Your task to perform on an android device: set an alarm Image 0: 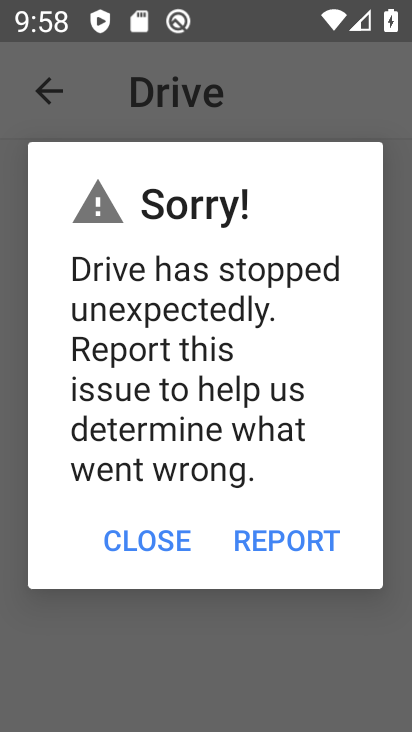
Step 0: press home button
Your task to perform on an android device: set an alarm Image 1: 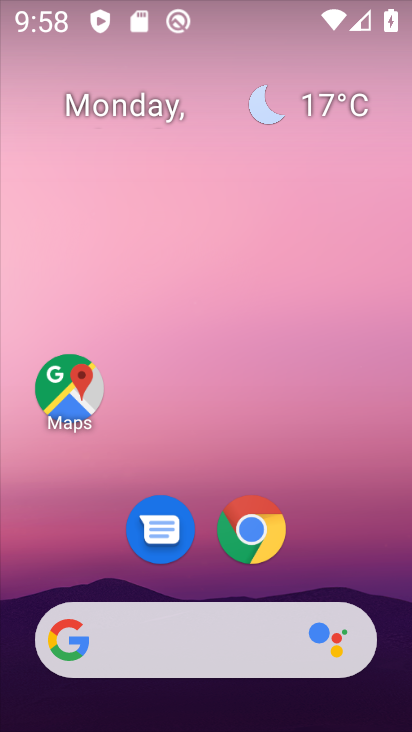
Step 1: drag from (352, 543) to (343, 0)
Your task to perform on an android device: set an alarm Image 2: 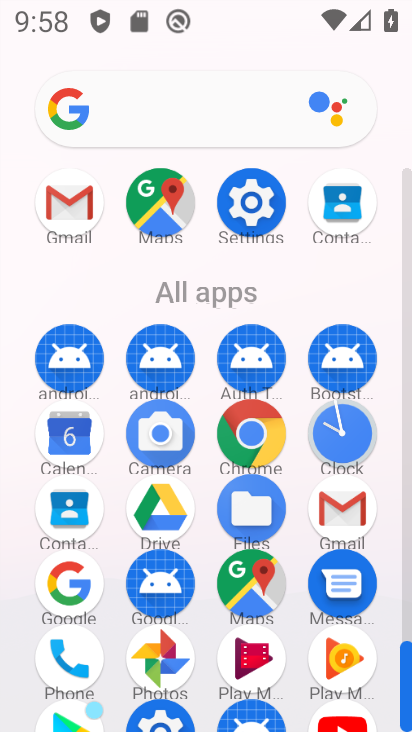
Step 2: click (328, 435)
Your task to perform on an android device: set an alarm Image 3: 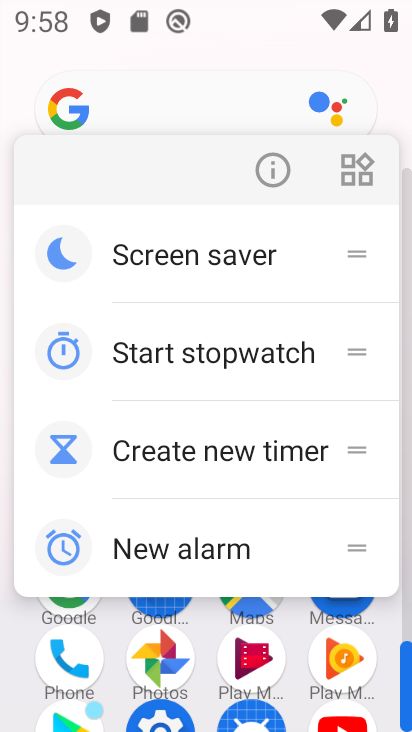
Step 3: click (394, 614)
Your task to perform on an android device: set an alarm Image 4: 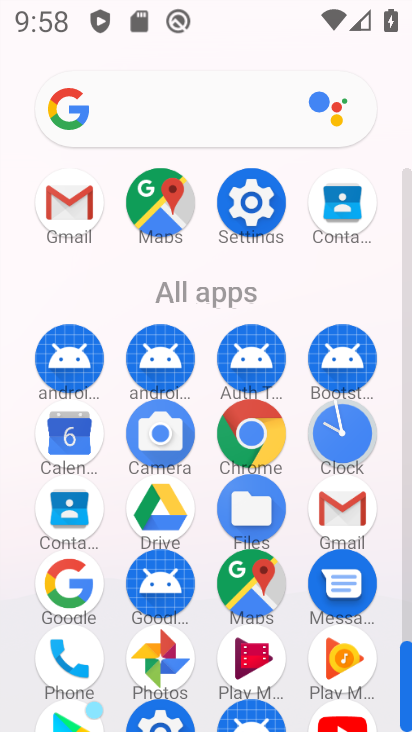
Step 4: click (365, 443)
Your task to perform on an android device: set an alarm Image 5: 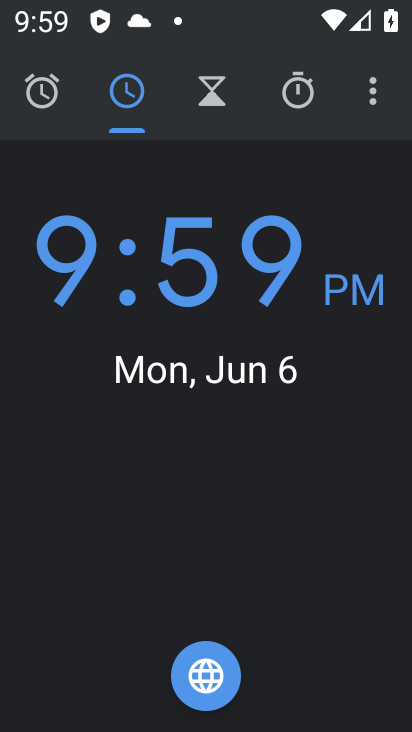
Step 5: click (19, 101)
Your task to perform on an android device: set an alarm Image 6: 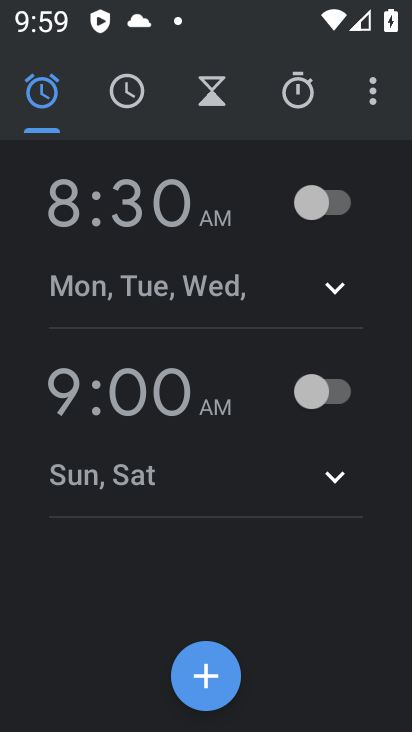
Step 6: click (209, 694)
Your task to perform on an android device: set an alarm Image 7: 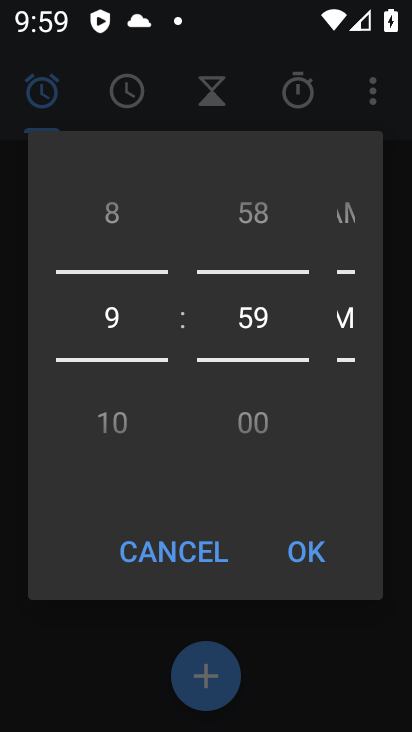
Step 7: click (286, 566)
Your task to perform on an android device: set an alarm Image 8: 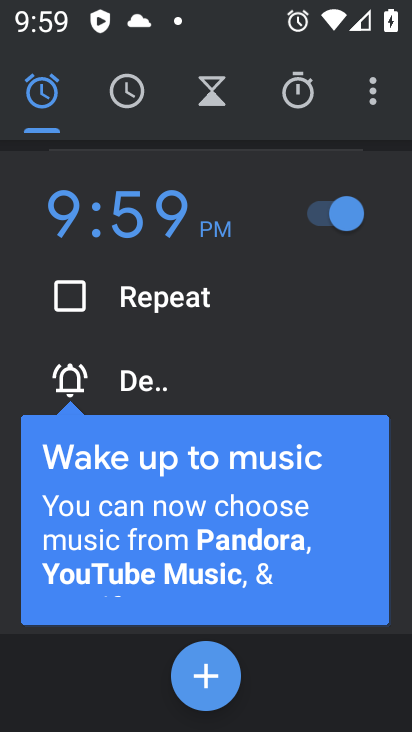
Step 8: task complete